Your task to perform on an android device: Open the stopwatch Image 0: 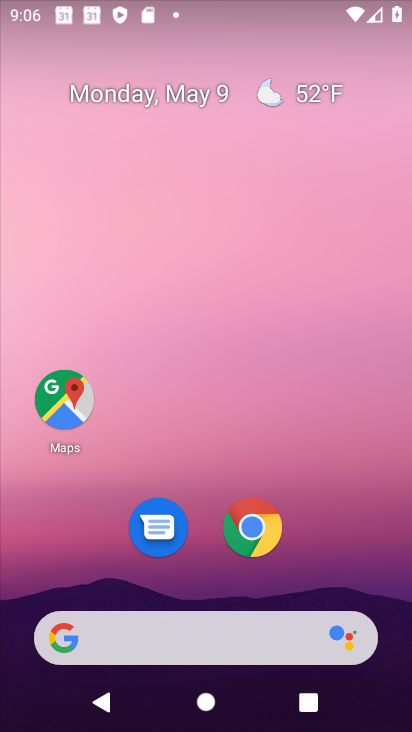
Step 0: drag from (340, 523) to (302, 131)
Your task to perform on an android device: Open the stopwatch Image 1: 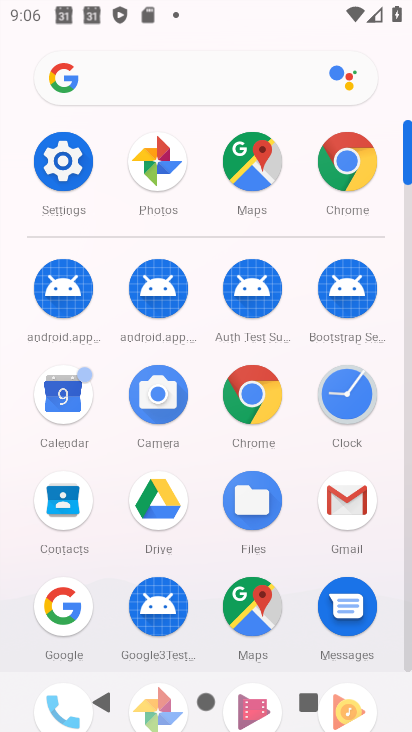
Step 1: click (338, 416)
Your task to perform on an android device: Open the stopwatch Image 2: 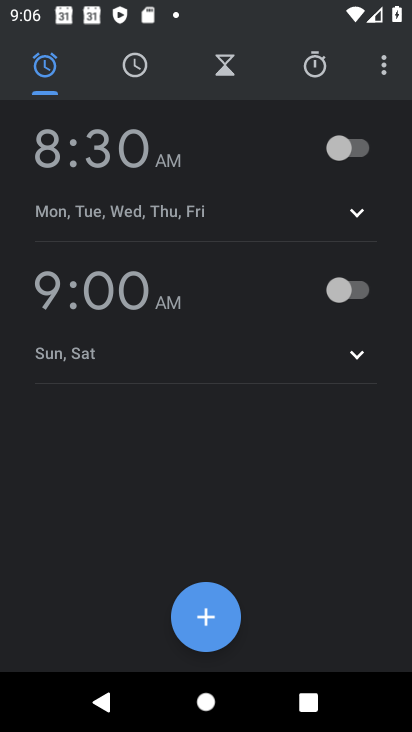
Step 2: click (303, 72)
Your task to perform on an android device: Open the stopwatch Image 3: 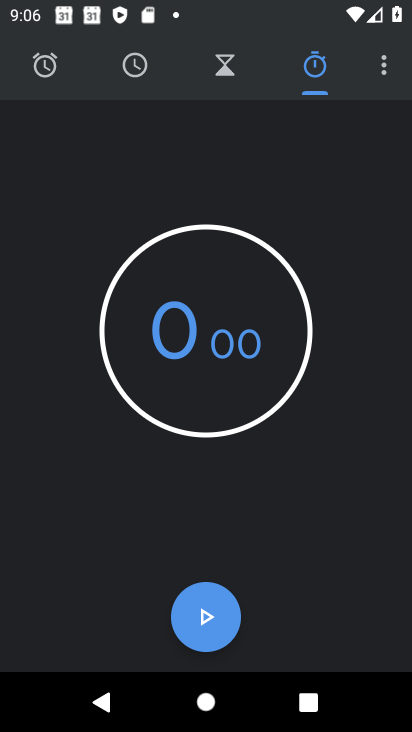
Step 3: click (198, 622)
Your task to perform on an android device: Open the stopwatch Image 4: 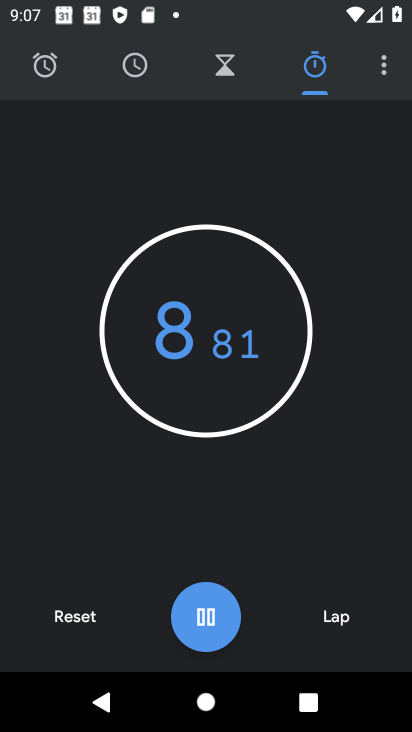
Step 4: click (182, 616)
Your task to perform on an android device: Open the stopwatch Image 5: 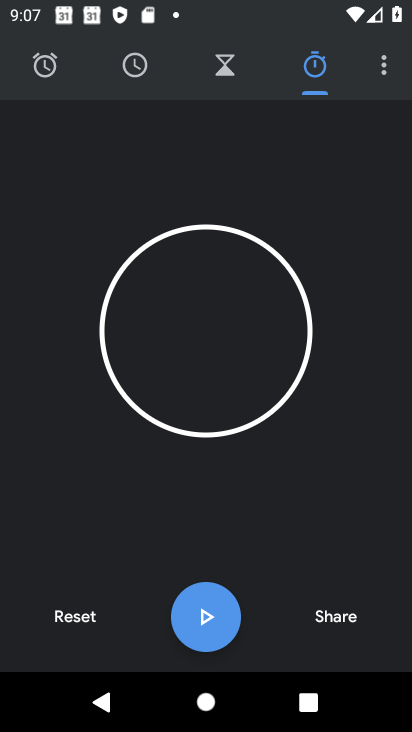
Step 5: task complete